Your task to perform on an android device: Open Google Image 0: 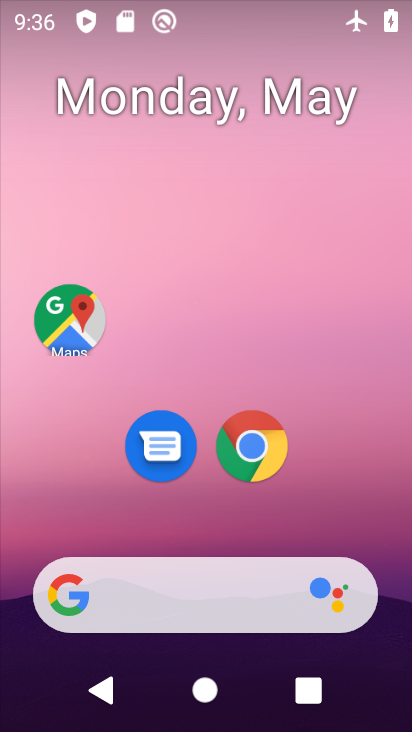
Step 0: drag from (94, 528) to (190, 34)
Your task to perform on an android device: Open Google Image 1: 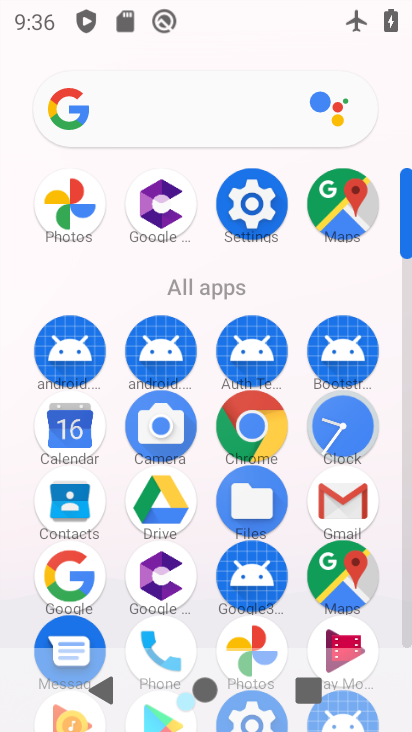
Step 1: drag from (210, 620) to (266, 378)
Your task to perform on an android device: Open Google Image 2: 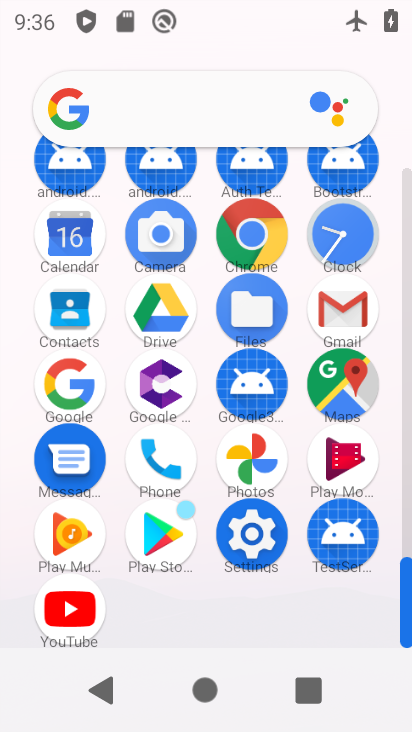
Step 2: click (63, 384)
Your task to perform on an android device: Open Google Image 3: 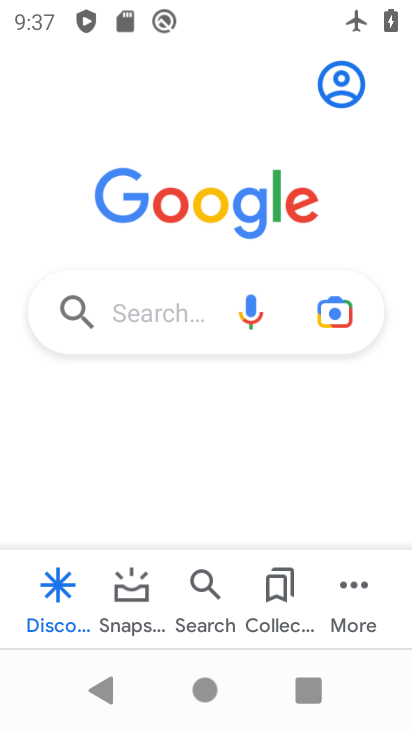
Step 3: task complete